Your task to perform on an android device: check google app version Image 0: 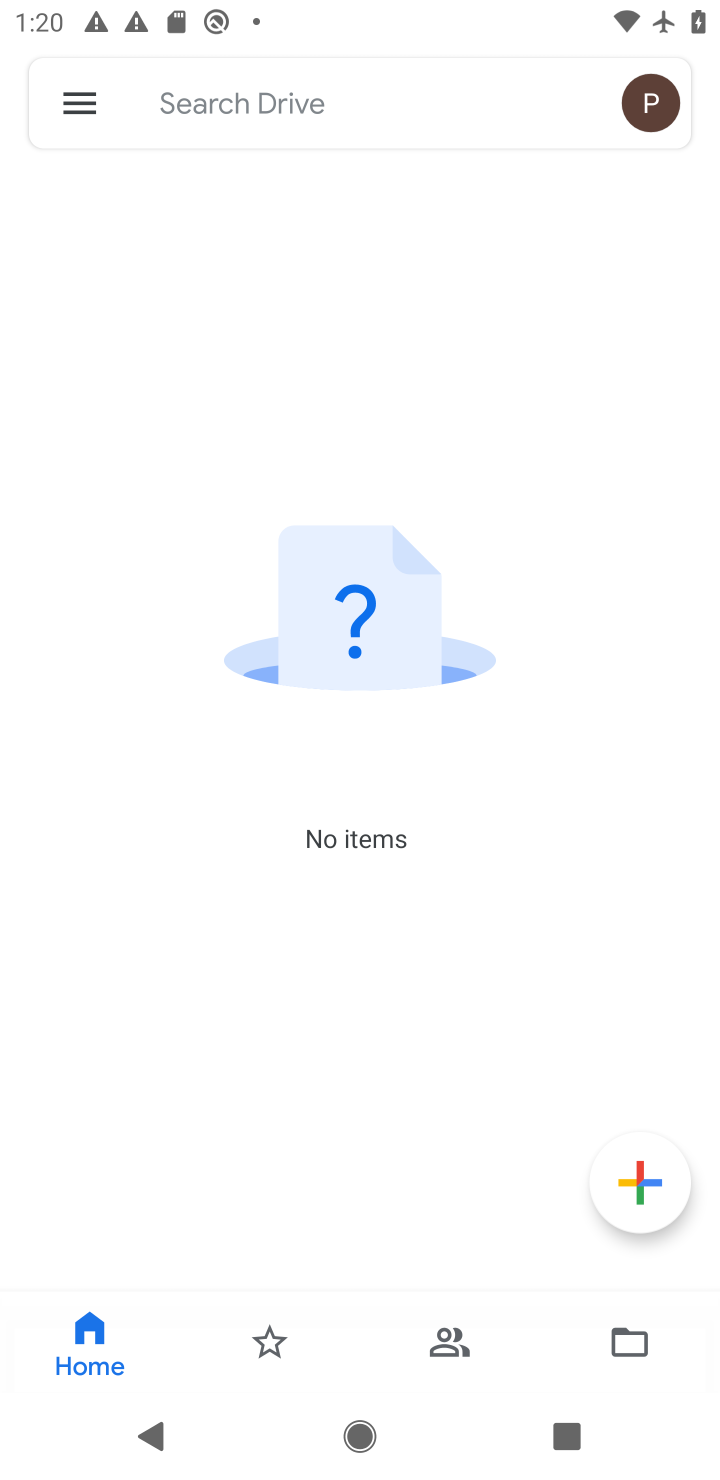
Step 0: press home button
Your task to perform on an android device: check google app version Image 1: 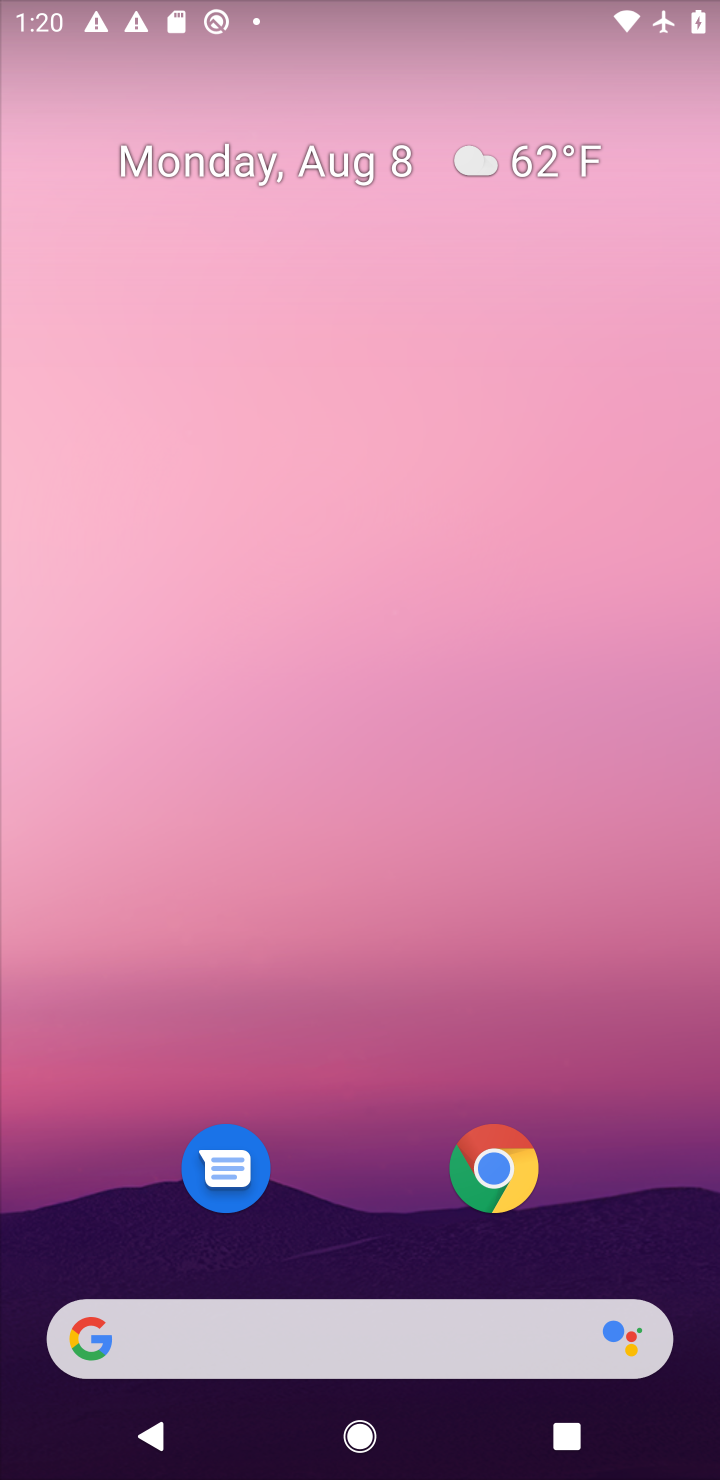
Step 1: drag from (381, 1260) to (410, 12)
Your task to perform on an android device: check google app version Image 2: 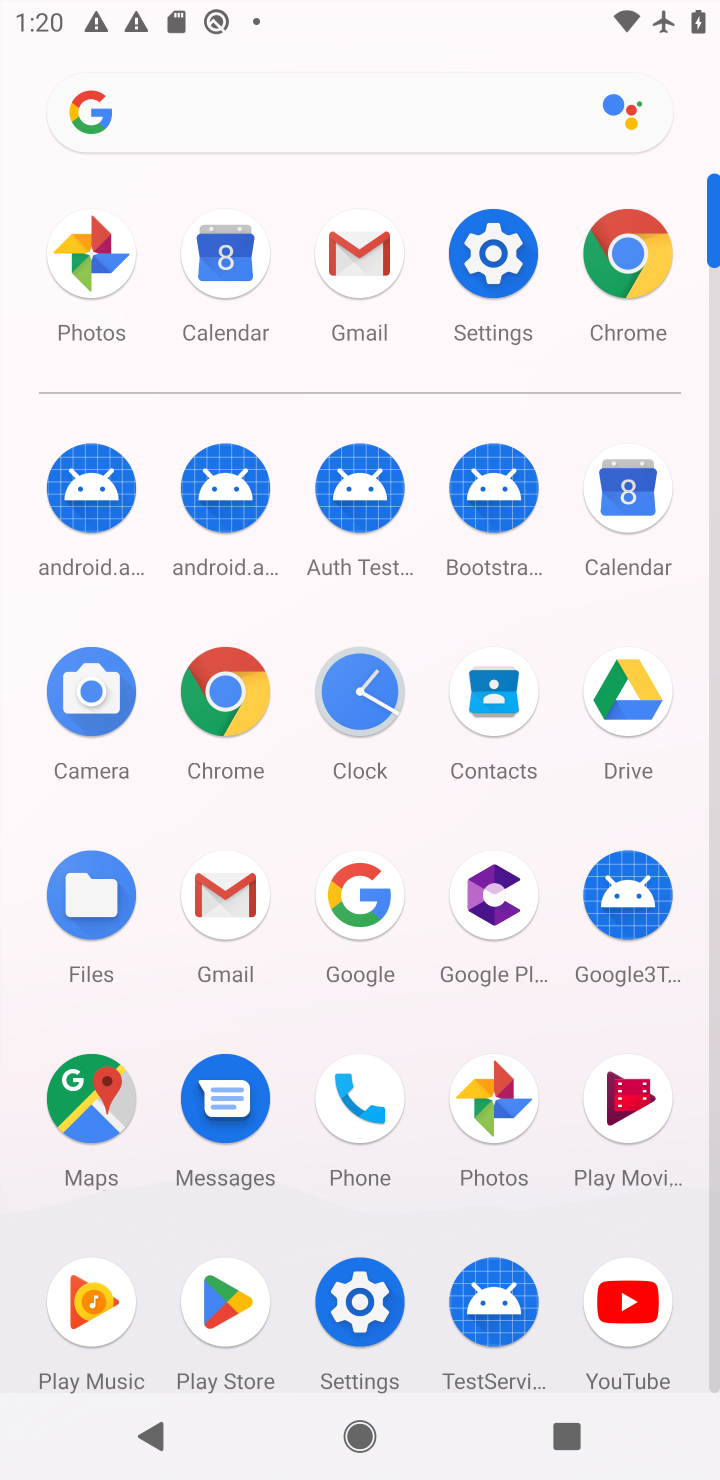
Step 2: click (627, 277)
Your task to perform on an android device: check google app version Image 3: 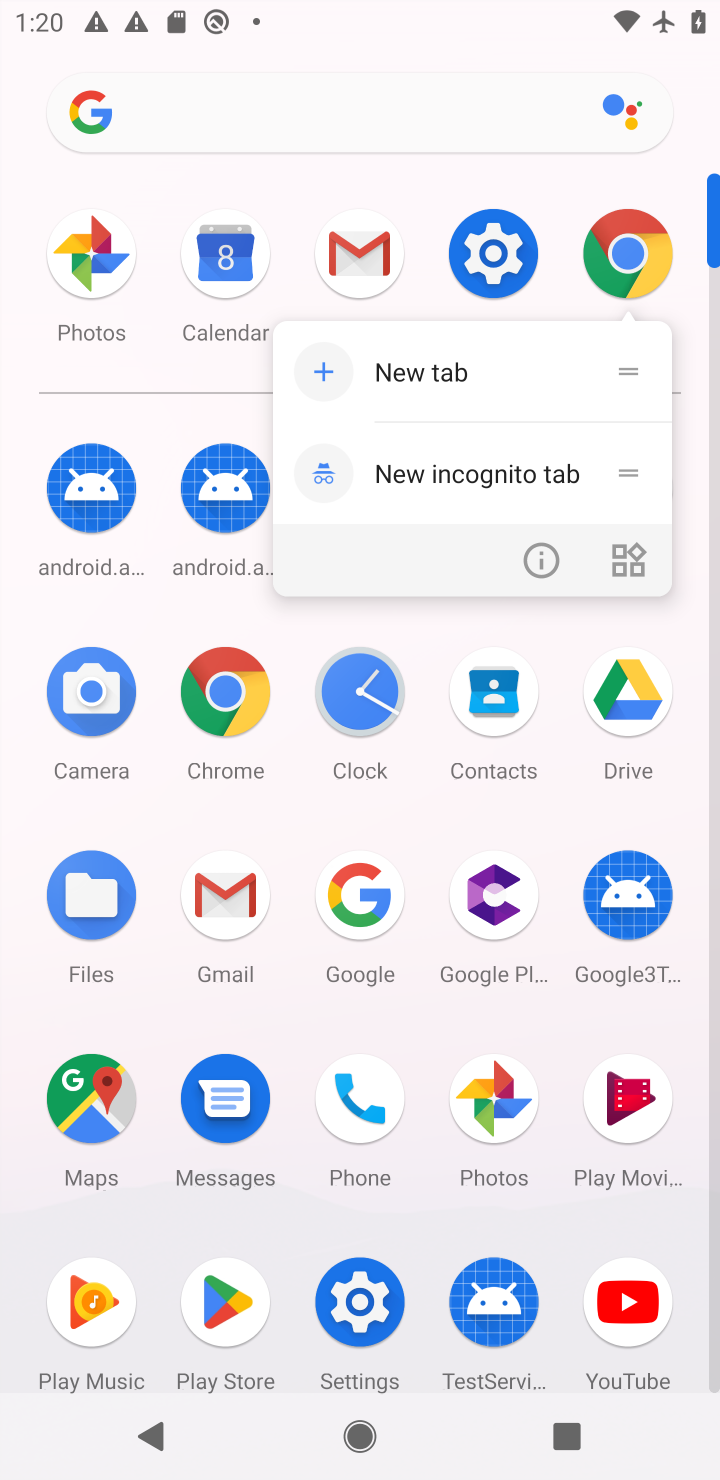
Step 3: click (530, 547)
Your task to perform on an android device: check google app version Image 4: 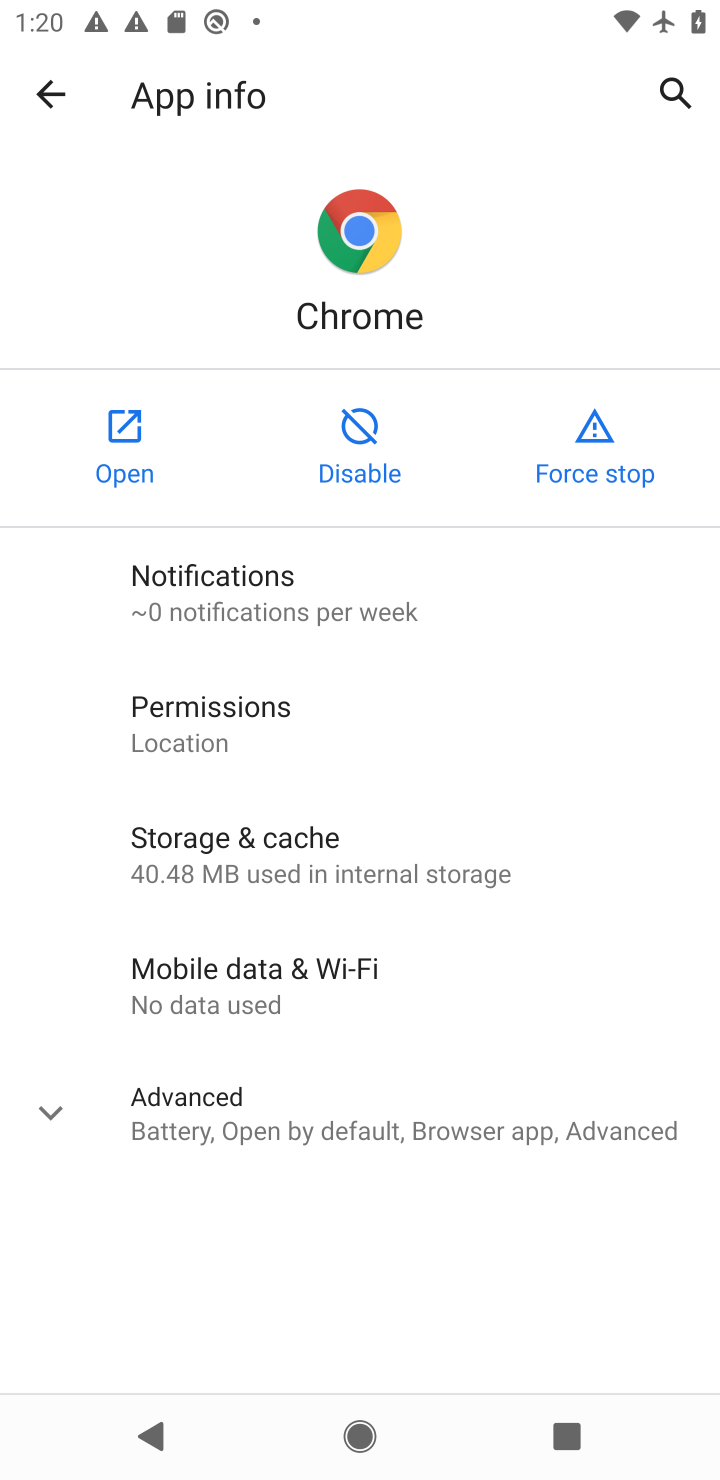
Step 4: task complete